Your task to perform on an android device: Open accessibility settings Image 0: 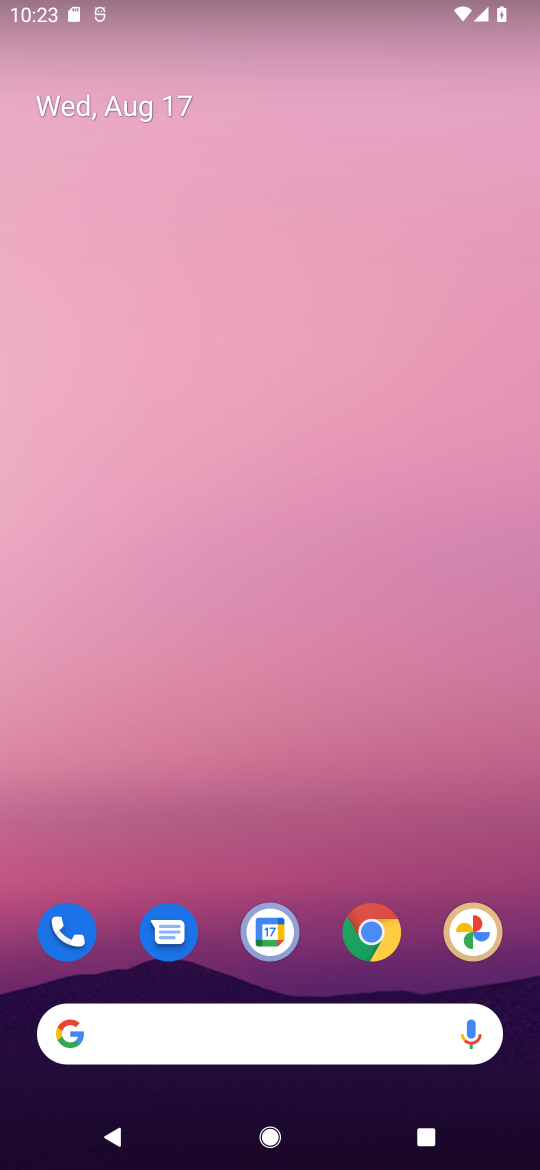
Step 0: press home button
Your task to perform on an android device: Open accessibility settings Image 1: 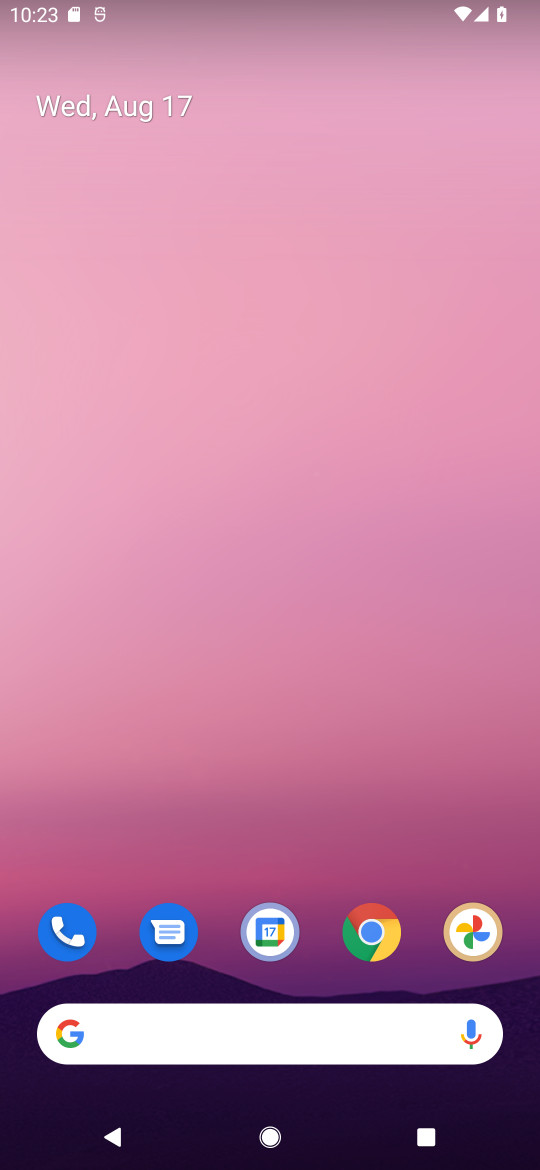
Step 1: drag from (318, 977) to (294, 145)
Your task to perform on an android device: Open accessibility settings Image 2: 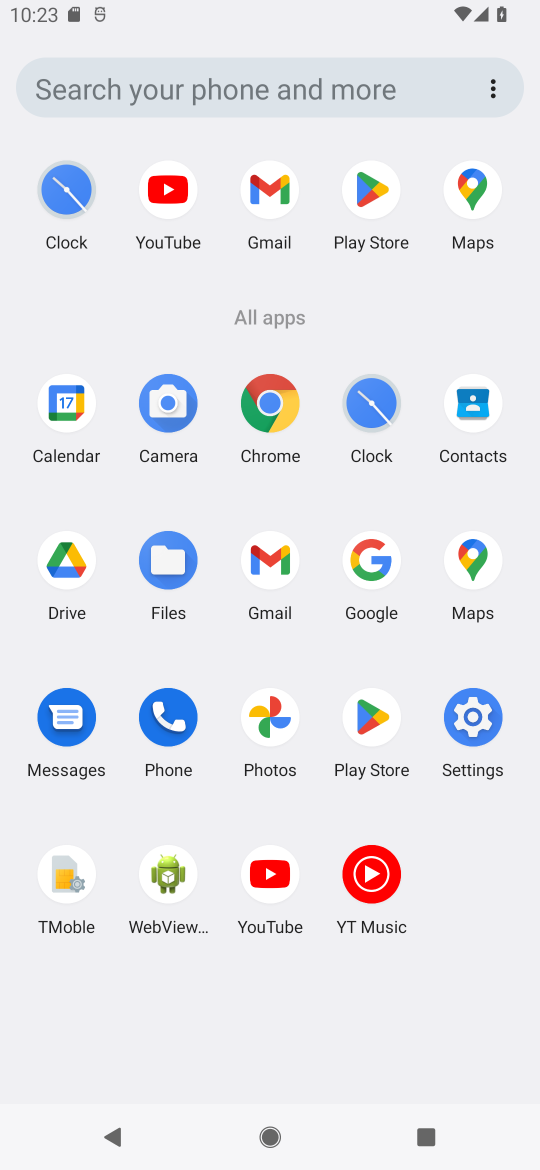
Step 2: click (373, 395)
Your task to perform on an android device: Open accessibility settings Image 3: 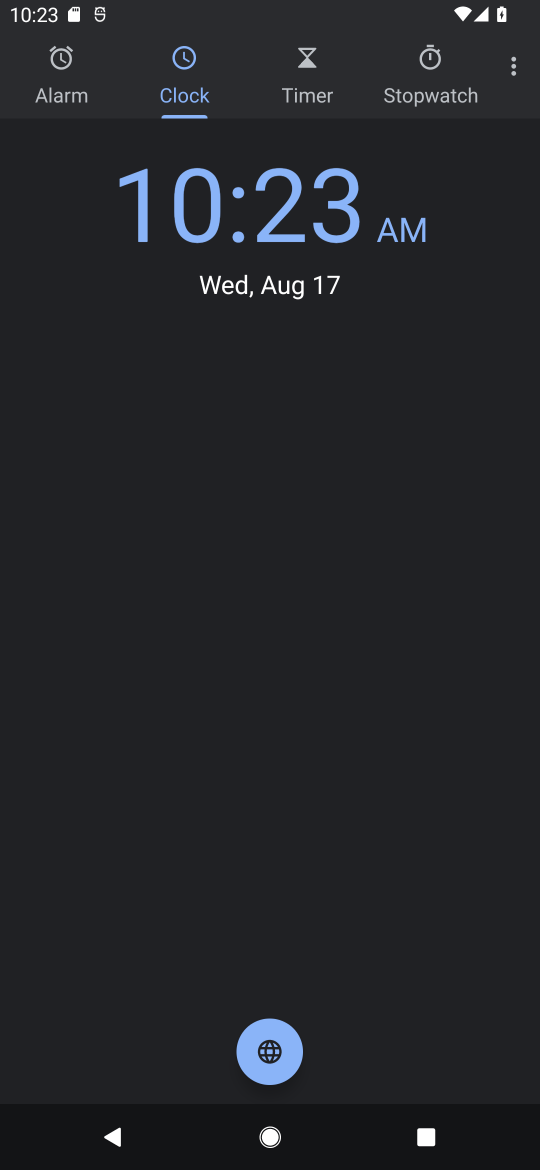
Step 3: press home button
Your task to perform on an android device: Open accessibility settings Image 4: 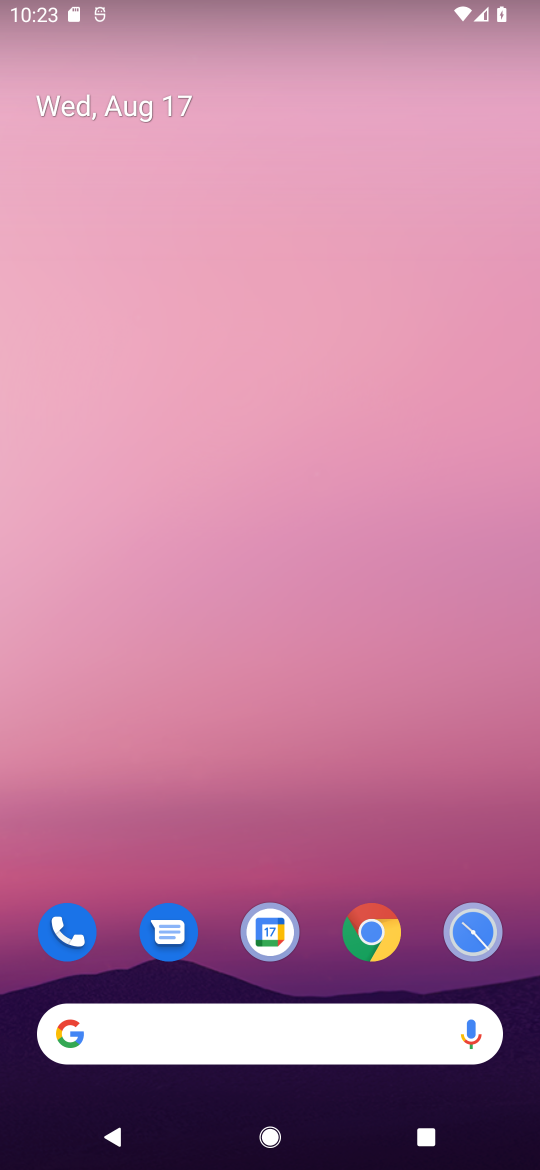
Step 4: drag from (314, 919) to (281, 0)
Your task to perform on an android device: Open accessibility settings Image 5: 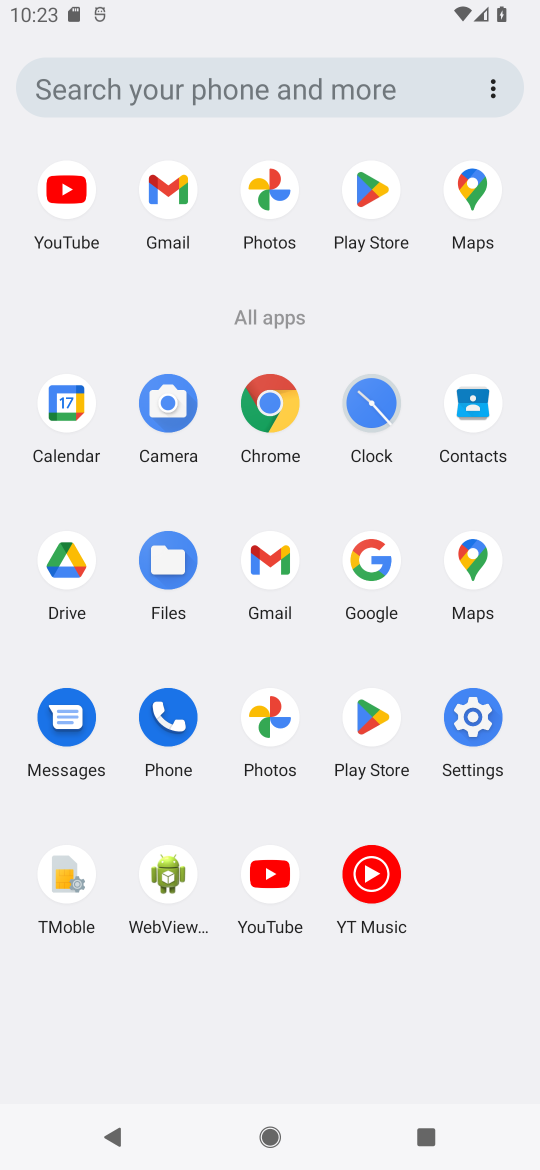
Step 5: click (474, 718)
Your task to perform on an android device: Open accessibility settings Image 6: 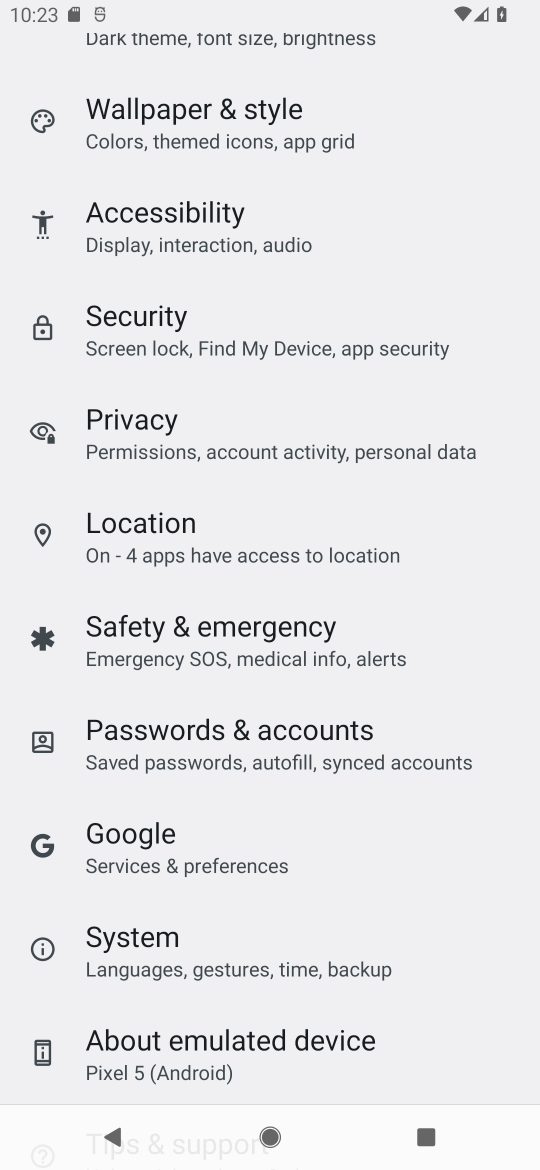
Step 6: drag from (199, 1056) to (162, 361)
Your task to perform on an android device: Open accessibility settings Image 7: 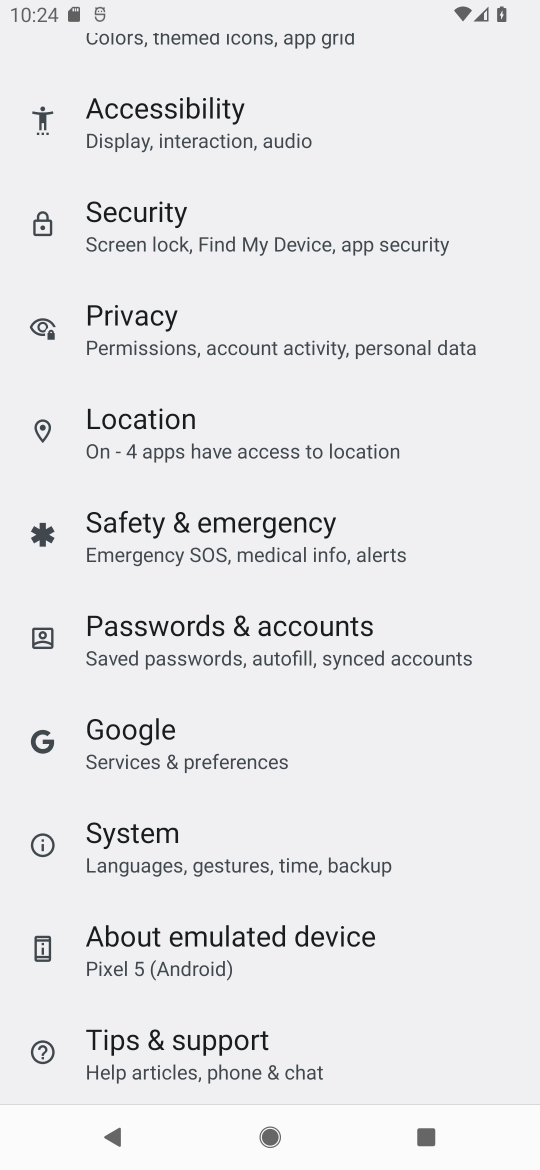
Step 7: drag from (199, 1009) to (230, 256)
Your task to perform on an android device: Open accessibility settings Image 8: 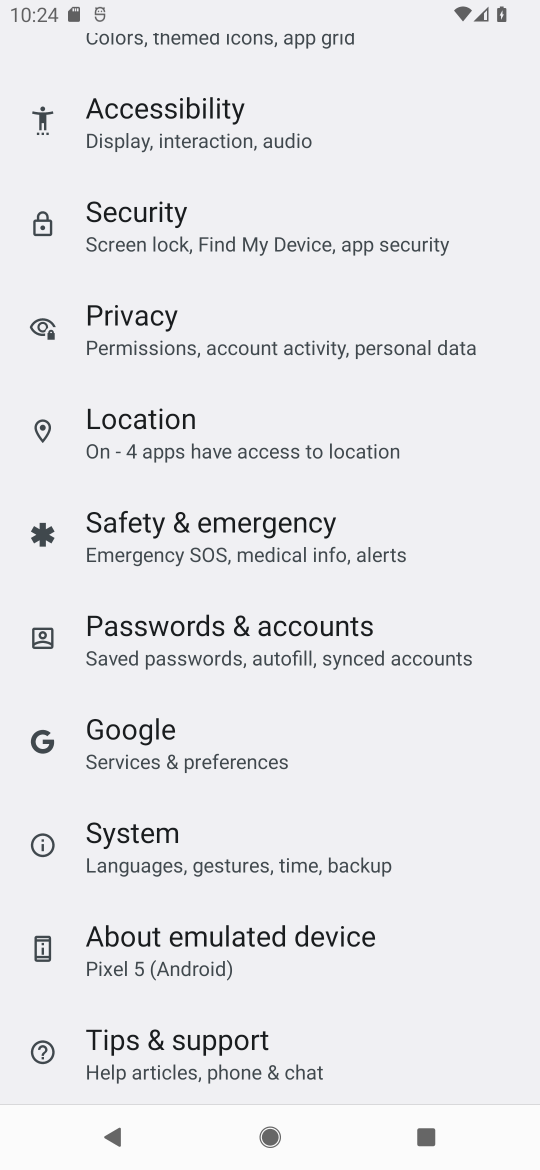
Step 8: click (152, 114)
Your task to perform on an android device: Open accessibility settings Image 9: 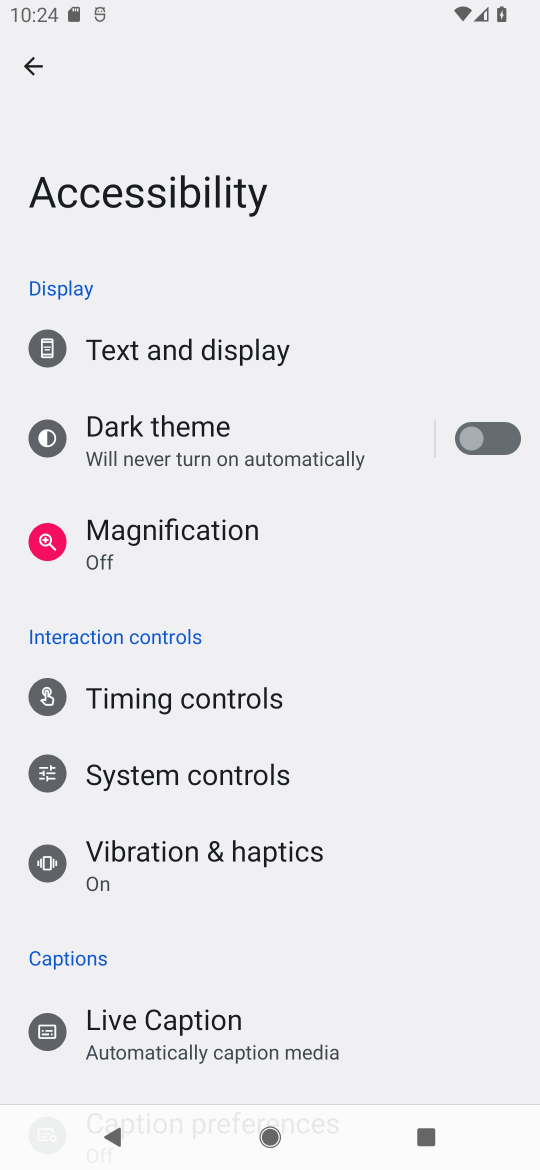
Step 9: task complete